Your task to perform on an android device: check the backup settings in the google photos Image 0: 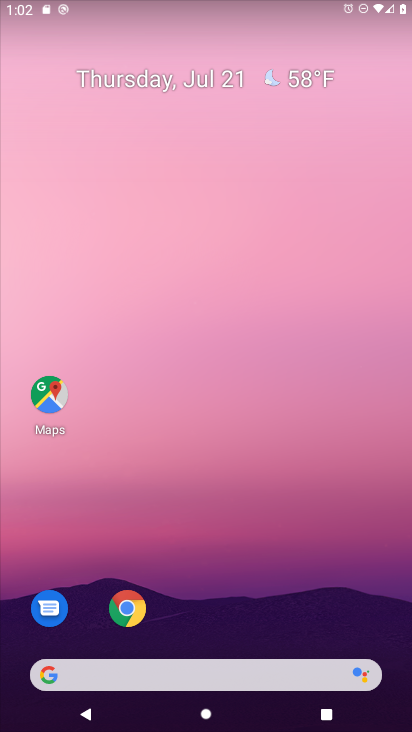
Step 0: press home button
Your task to perform on an android device: check the backup settings in the google photos Image 1: 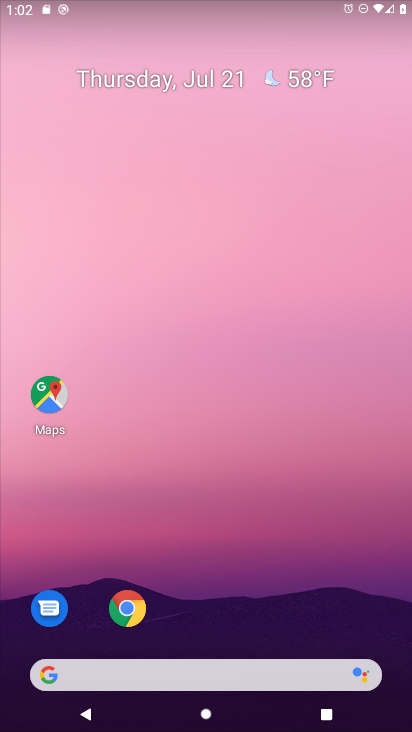
Step 1: drag from (202, 636) to (257, 209)
Your task to perform on an android device: check the backup settings in the google photos Image 2: 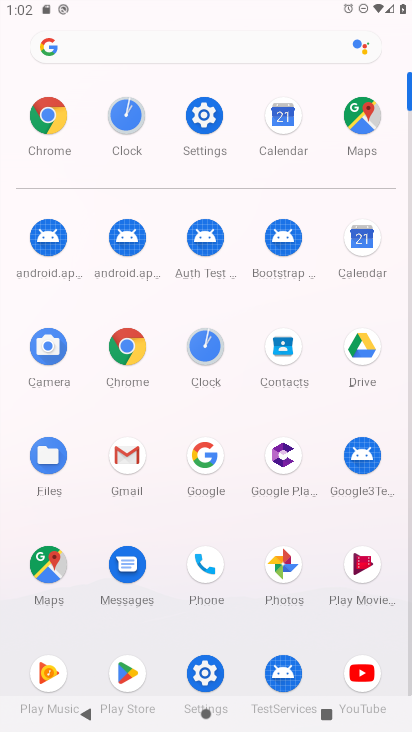
Step 2: click (276, 573)
Your task to perform on an android device: check the backup settings in the google photos Image 3: 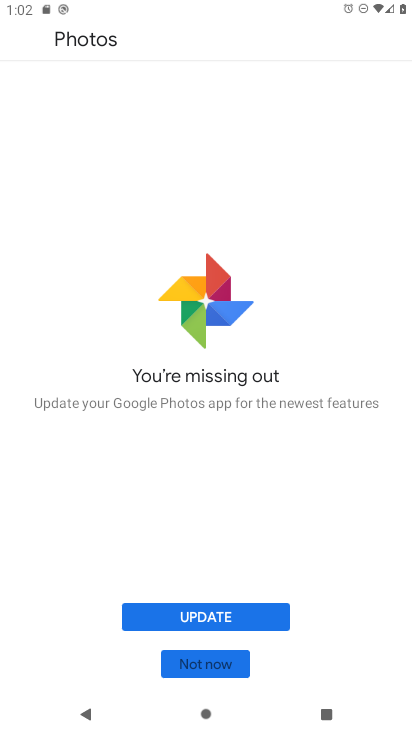
Step 3: click (201, 624)
Your task to perform on an android device: check the backup settings in the google photos Image 4: 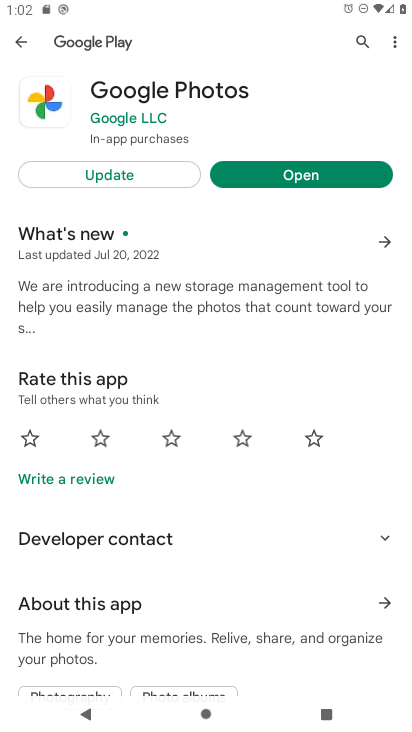
Step 4: click (54, 177)
Your task to perform on an android device: check the backup settings in the google photos Image 5: 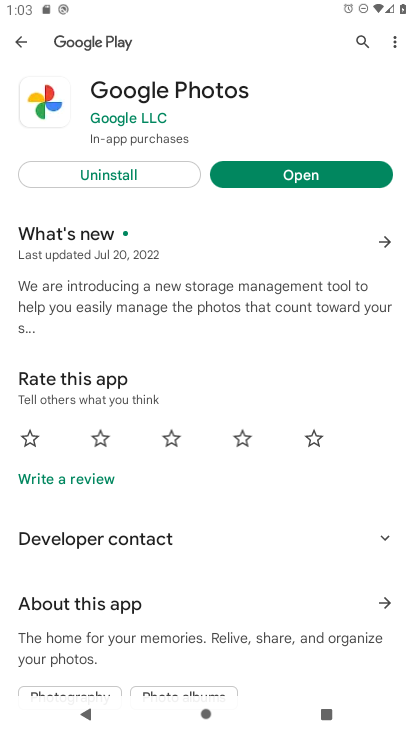
Step 5: click (272, 166)
Your task to perform on an android device: check the backup settings in the google photos Image 6: 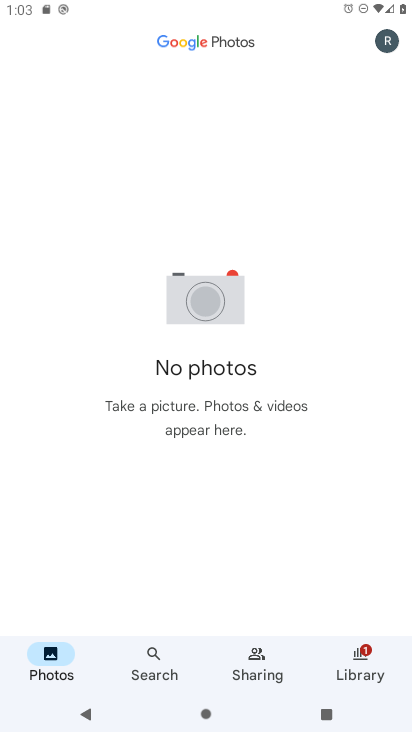
Step 6: click (380, 42)
Your task to perform on an android device: check the backup settings in the google photos Image 7: 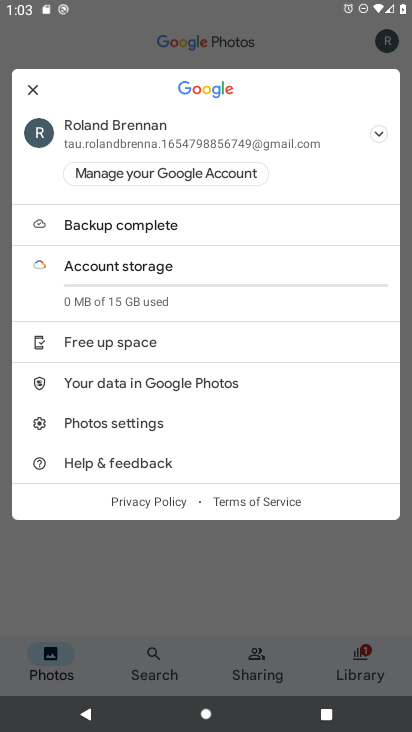
Step 7: click (123, 425)
Your task to perform on an android device: check the backup settings in the google photos Image 8: 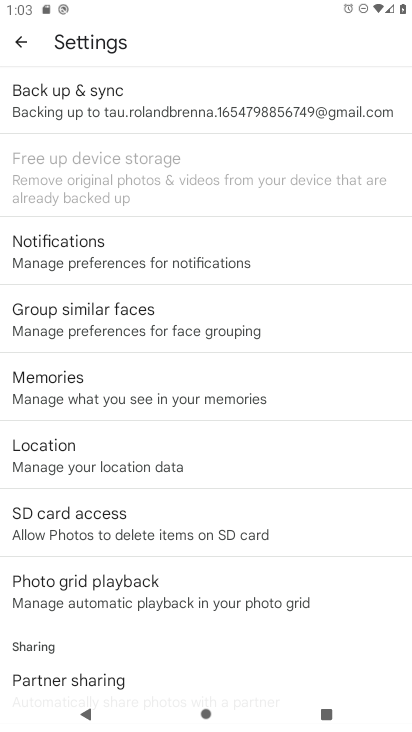
Step 8: click (65, 105)
Your task to perform on an android device: check the backup settings in the google photos Image 9: 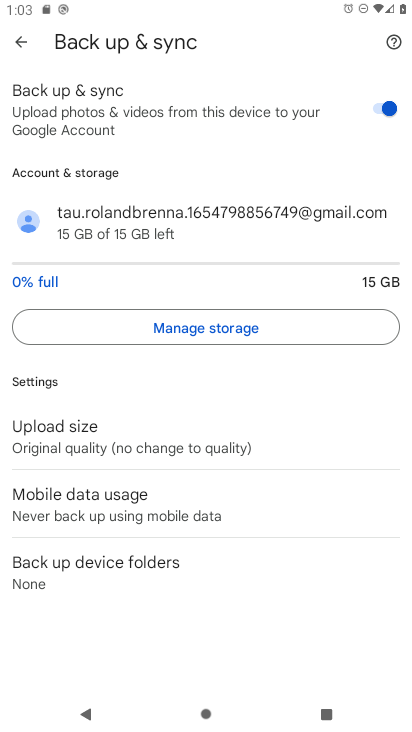
Step 9: task complete